Your task to perform on an android device: toggle location history Image 0: 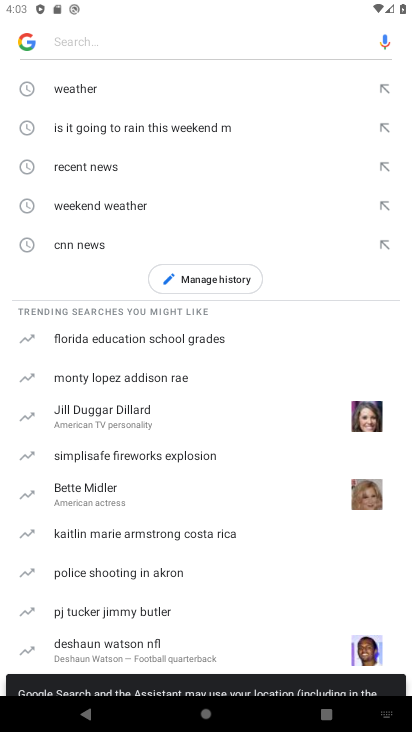
Step 0: press home button
Your task to perform on an android device: toggle location history Image 1: 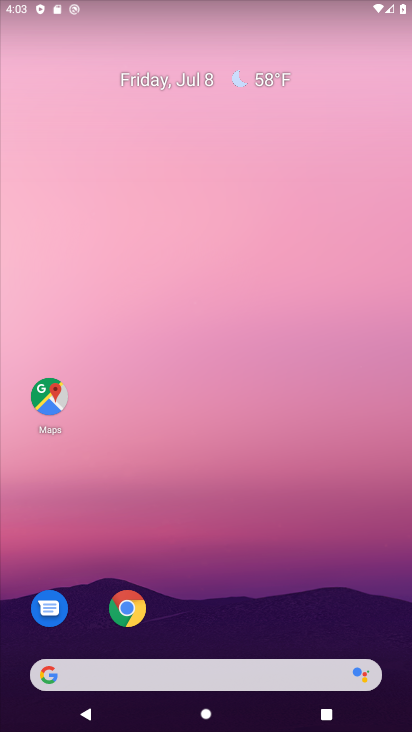
Step 1: drag from (282, 528) to (285, 200)
Your task to perform on an android device: toggle location history Image 2: 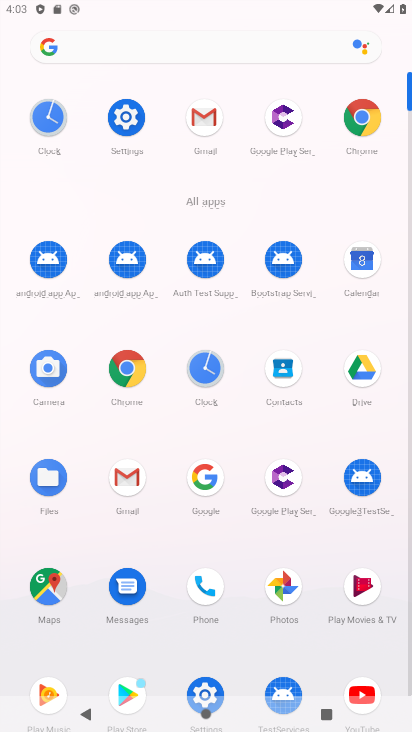
Step 2: click (133, 114)
Your task to perform on an android device: toggle location history Image 3: 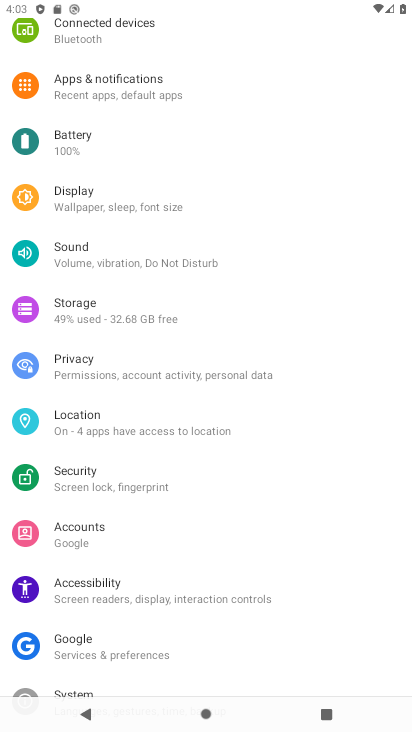
Step 3: click (82, 412)
Your task to perform on an android device: toggle location history Image 4: 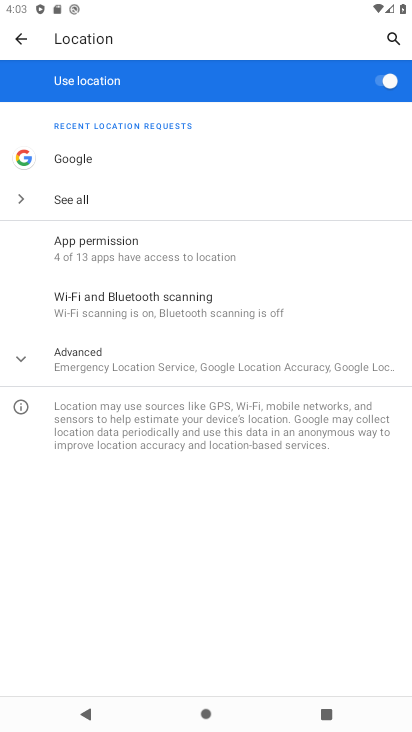
Step 4: click (86, 358)
Your task to perform on an android device: toggle location history Image 5: 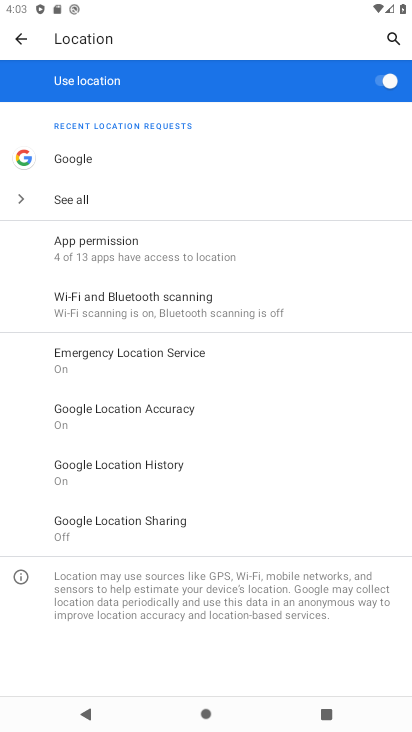
Step 5: click (127, 459)
Your task to perform on an android device: toggle location history Image 6: 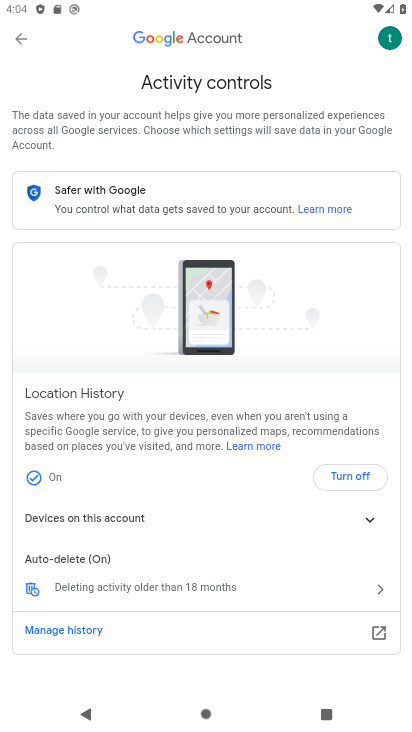
Step 6: click (363, 464)
Your task to perform on an android device: toggle location history Image 7: 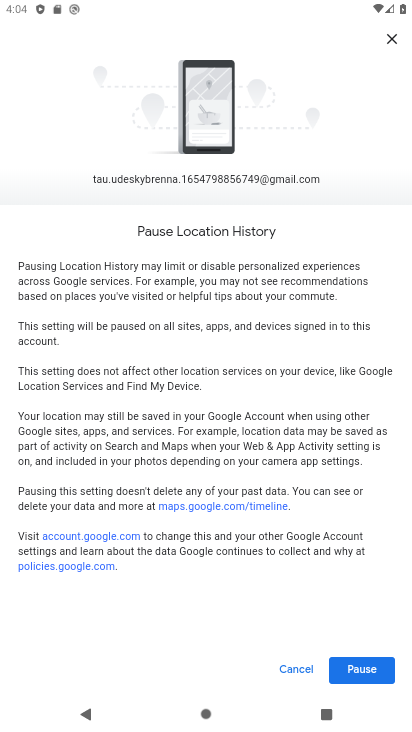
Step 7: click (353, 667)
Your task to perform on an android device: toggle location history Image 8: 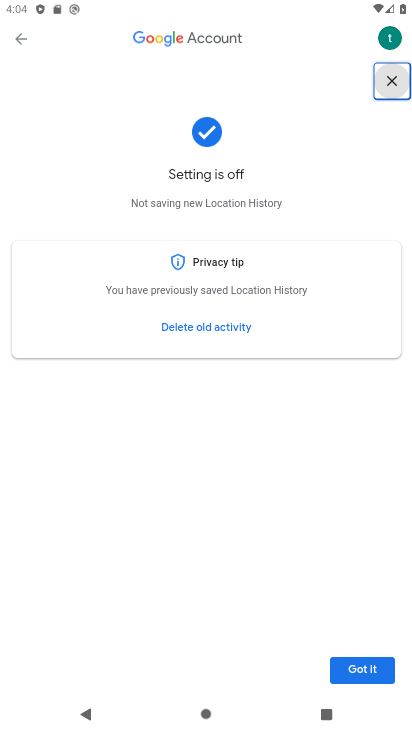
Step 8: click (353, 667)
Your task to perform on an android device: toggle location history Image 9: 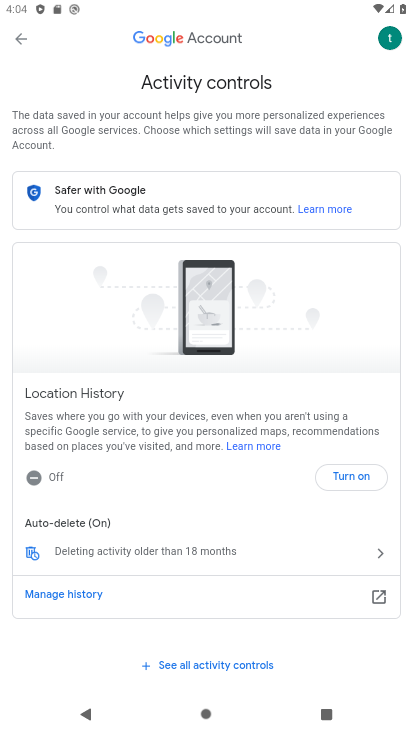
Step 9: task complete